Your task to perform on an android device: Open wifi settings Image 0: 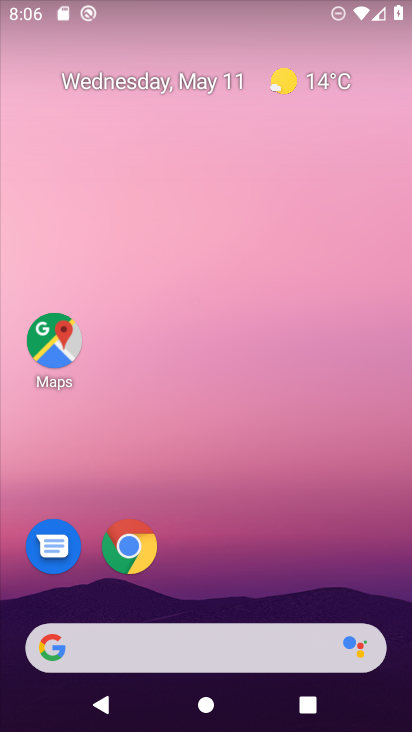
Step 0: drag from (217, 664) to (210, 127)
Your task to perform on an android device: Open wifi settings Image 1: 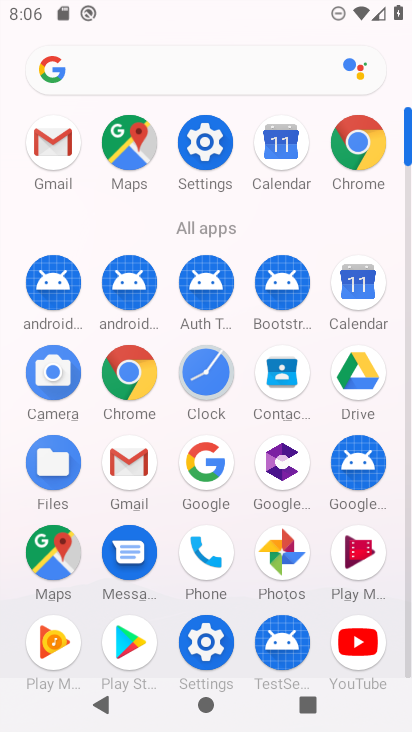
Step 1: click (213, 147)
Your task to perform on an android device: Open wifi settings Image 2: 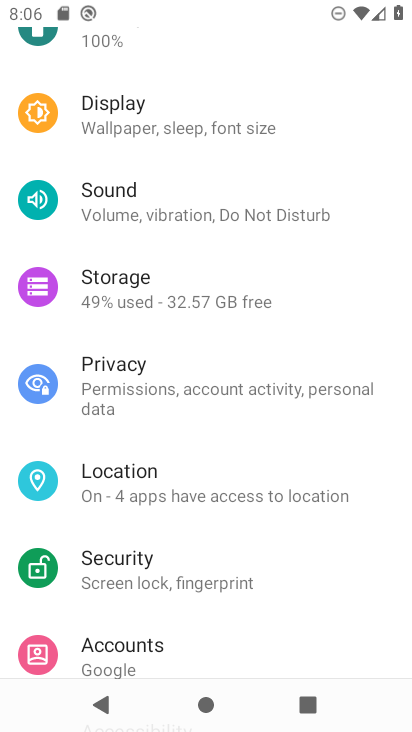
Step 2: drag from (222, 134) to (234, 719)
Your task to perform on an android device: Open wifi settings Image 3: 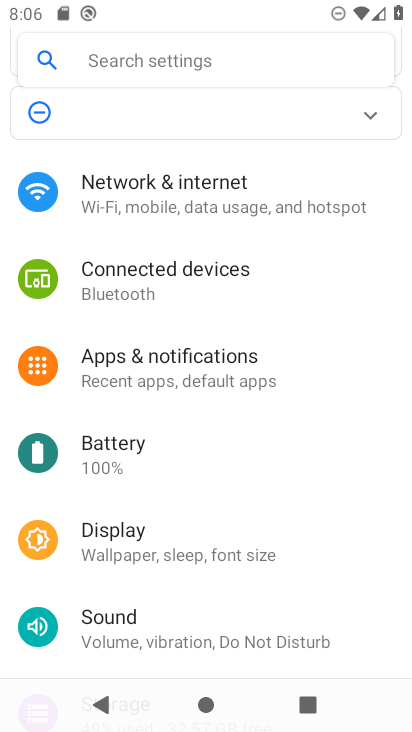
Step 3: click (164, 186)
Your task to perform on an android device: Open wifi settings Image 4: 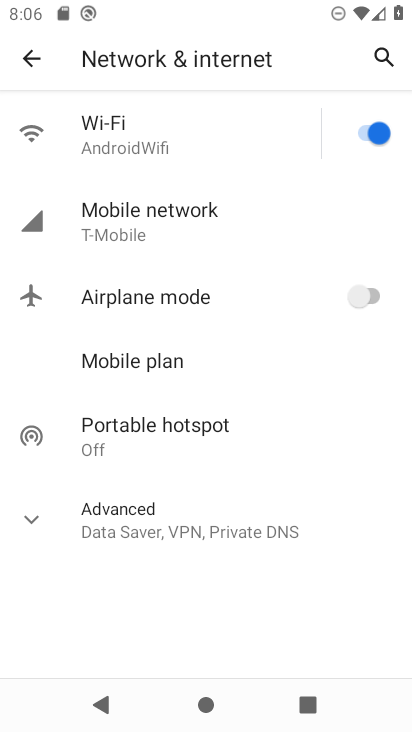
Step 4: click (101, 151)
Your task to perform on an android device: Open wifi settings Image 5: 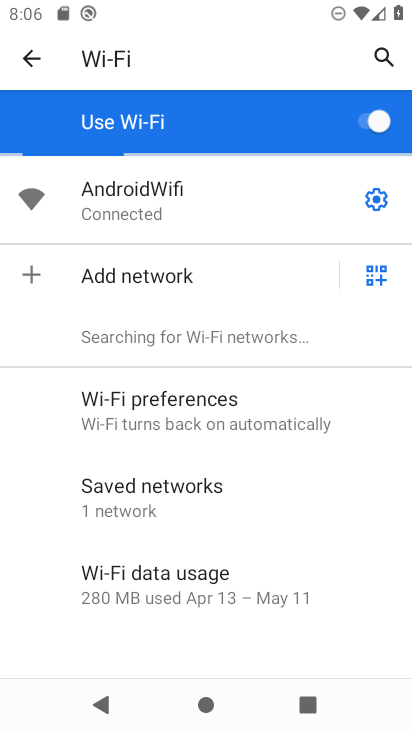
Step 5: task complete